Your task to perform on an android device: Open Chrome and go to the settings page Image 0: 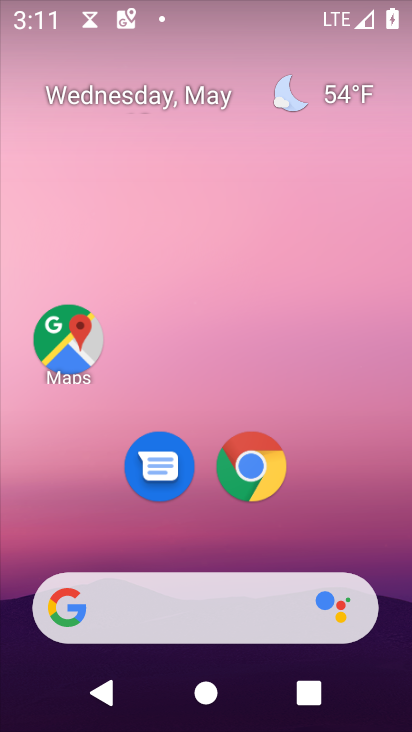
Step 0: drag from (396, 543) to (305, 210)
Your task to perform on an android device: Open Chrome and go to the settings page Image 1: 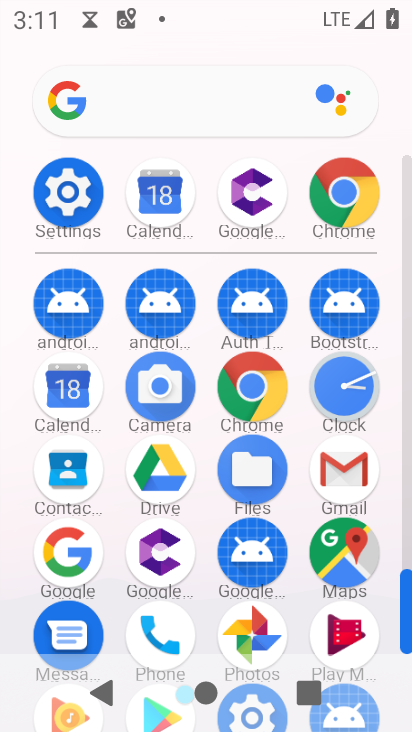
Step 1: click (345, 192)
Your task to perform on an android device: Open Chrome and go to the settings page Image 2: 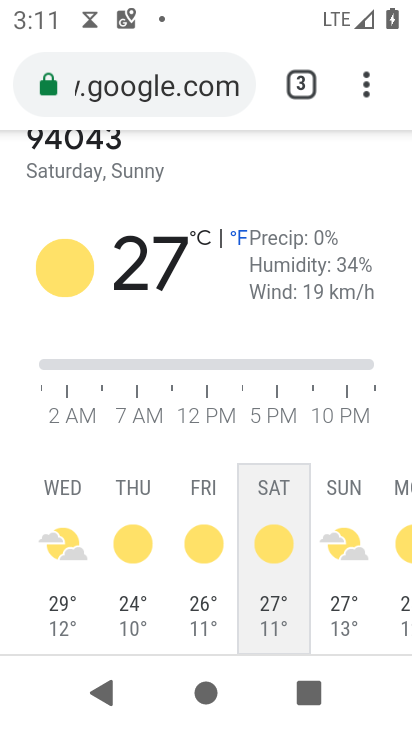
Step 2: click (371, 93)
Your task to perform on an android device: Open Chrome and go to the settings page Image 3: 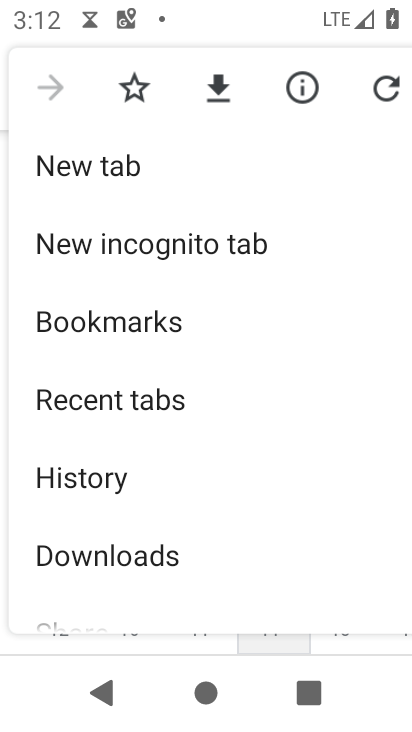
Step 3: drag from (264, 533) to (289, 92)
Your task to perform on an android device: Open Chrome and go to the settings page Image 4: 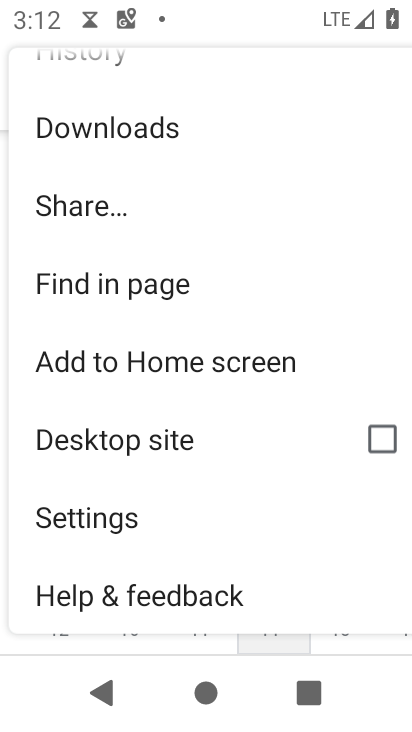
Step 4: click (230, 512)
Your task to perform on an android device: Open Chrome and go to the settings page Image 5: 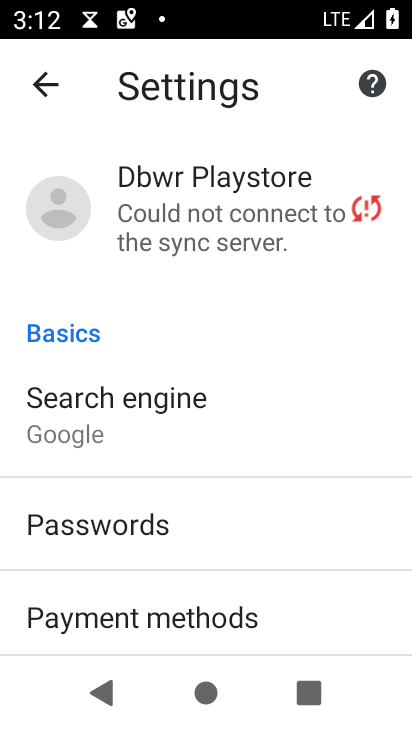
Step 5: task complete